Your task to perform on an android device: open a bookmark in the chrome app Image 0: 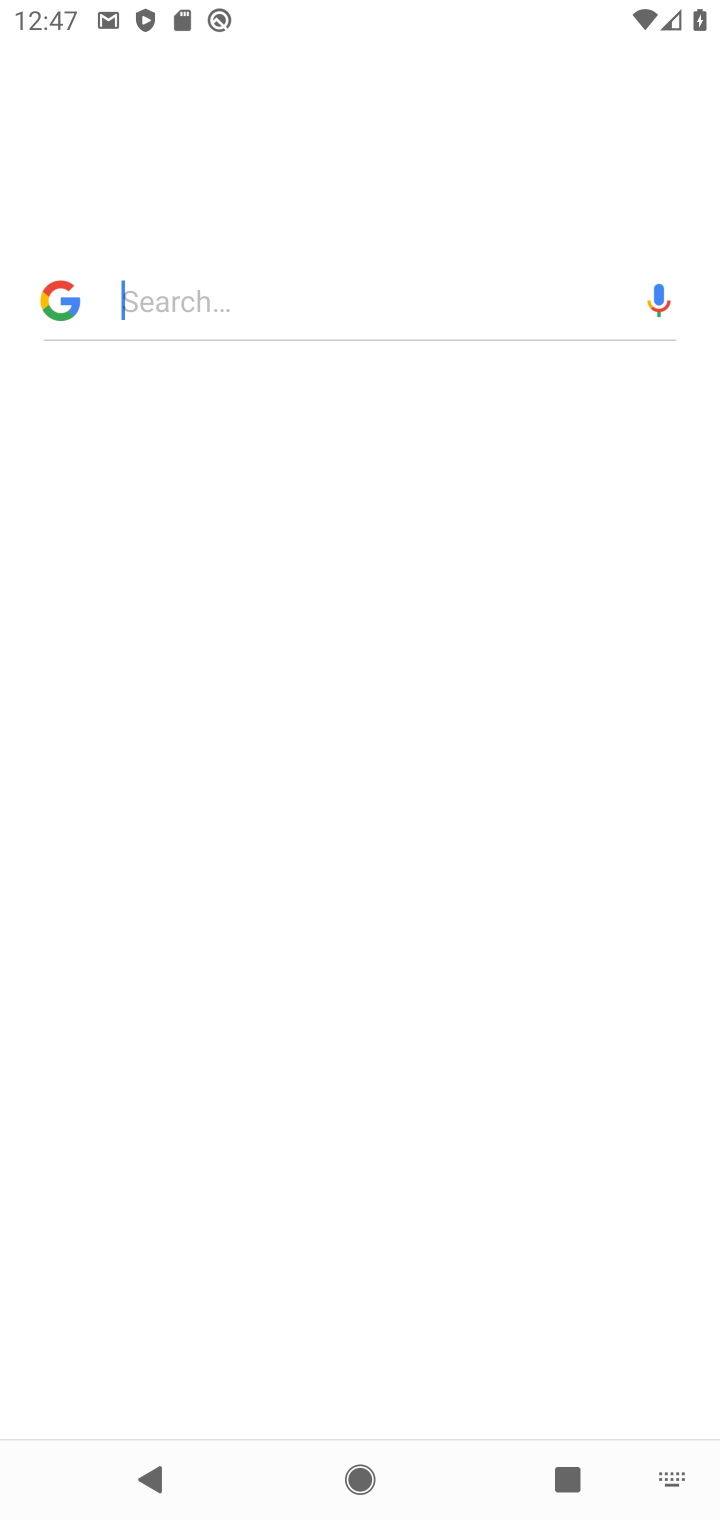
Step 0: press home button
Your task to perform on an android device: open a bookmark in the chrome app Image 1: 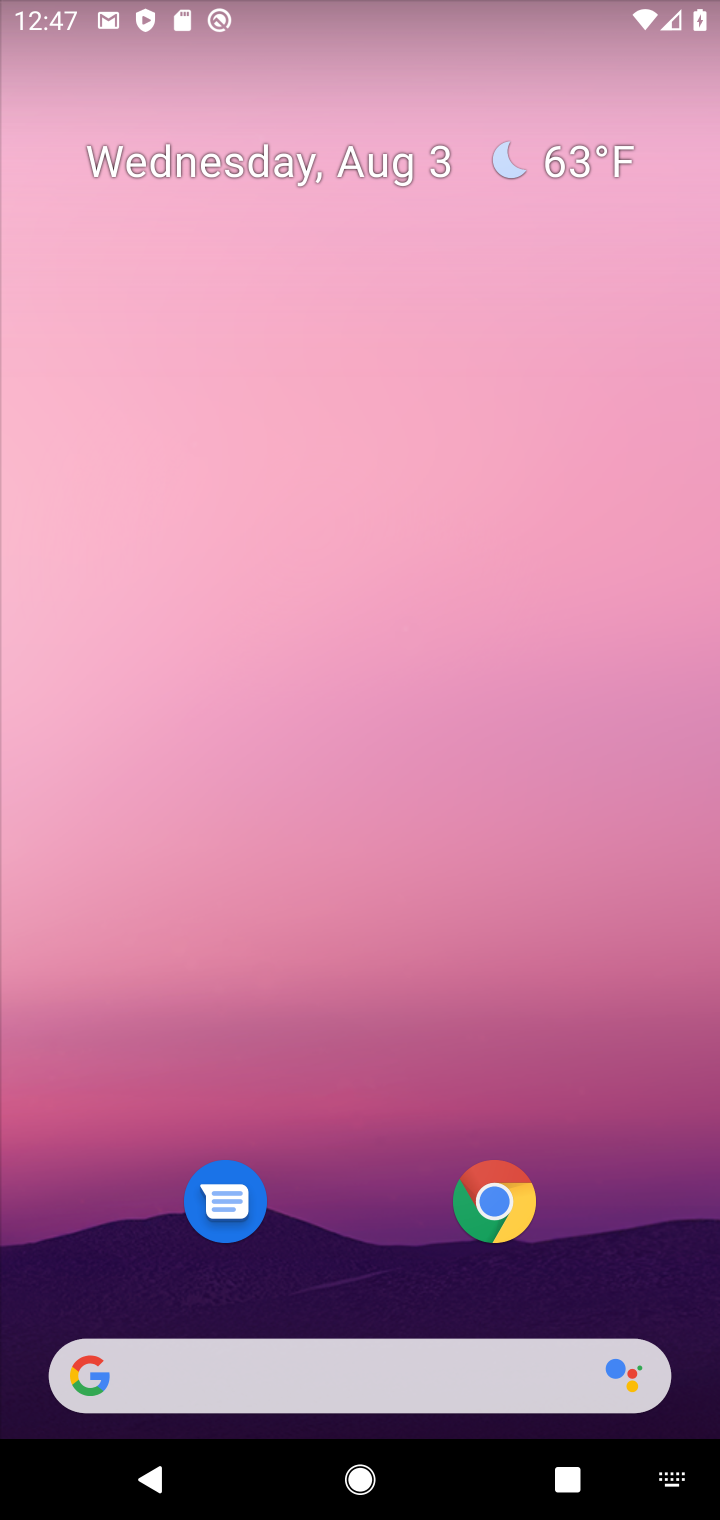
Step 1: click (497, 1202)
Your task to perform on an android device: open a bookmark in the chrome app Image 2: 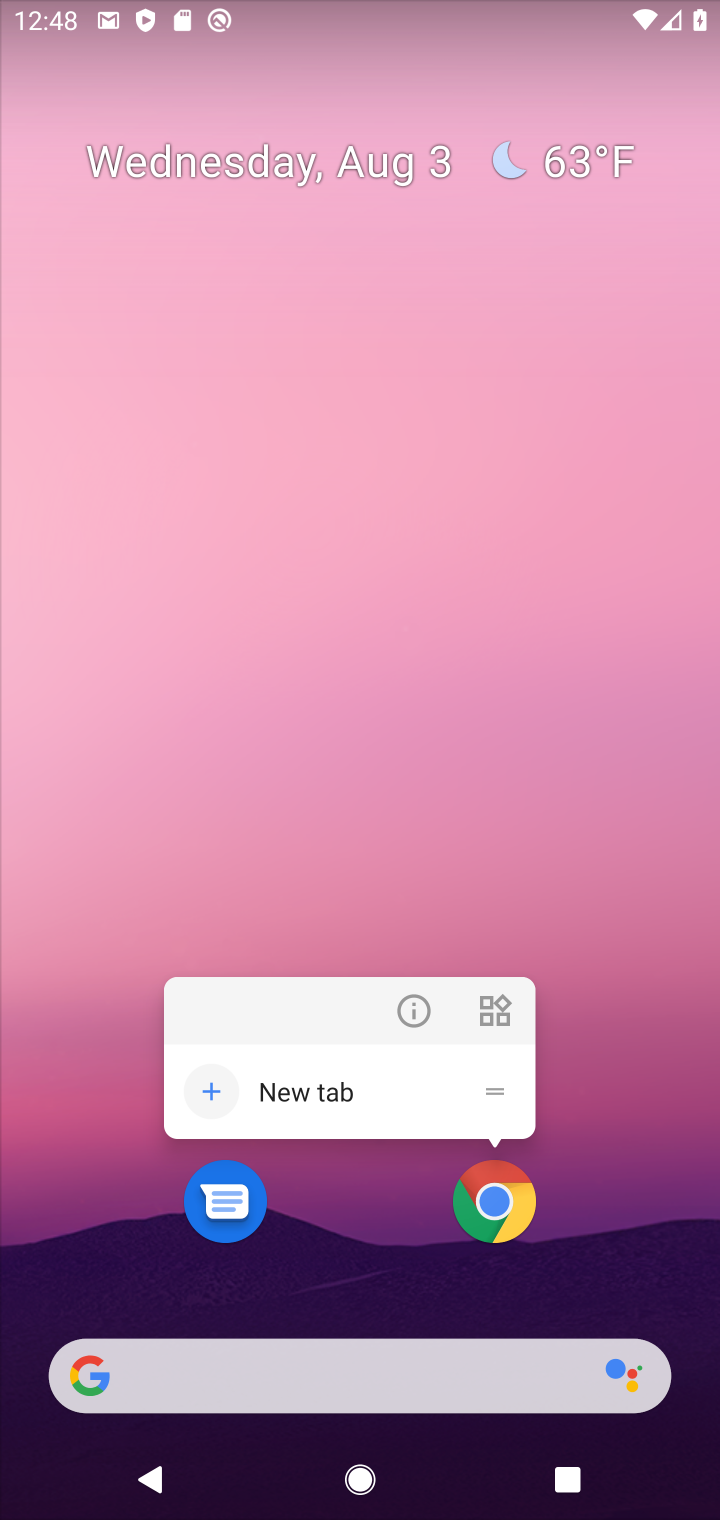
Step 2: click (497, 1206)
Your task to perform on an android device: open a bookmark in the chrome app Image 3: 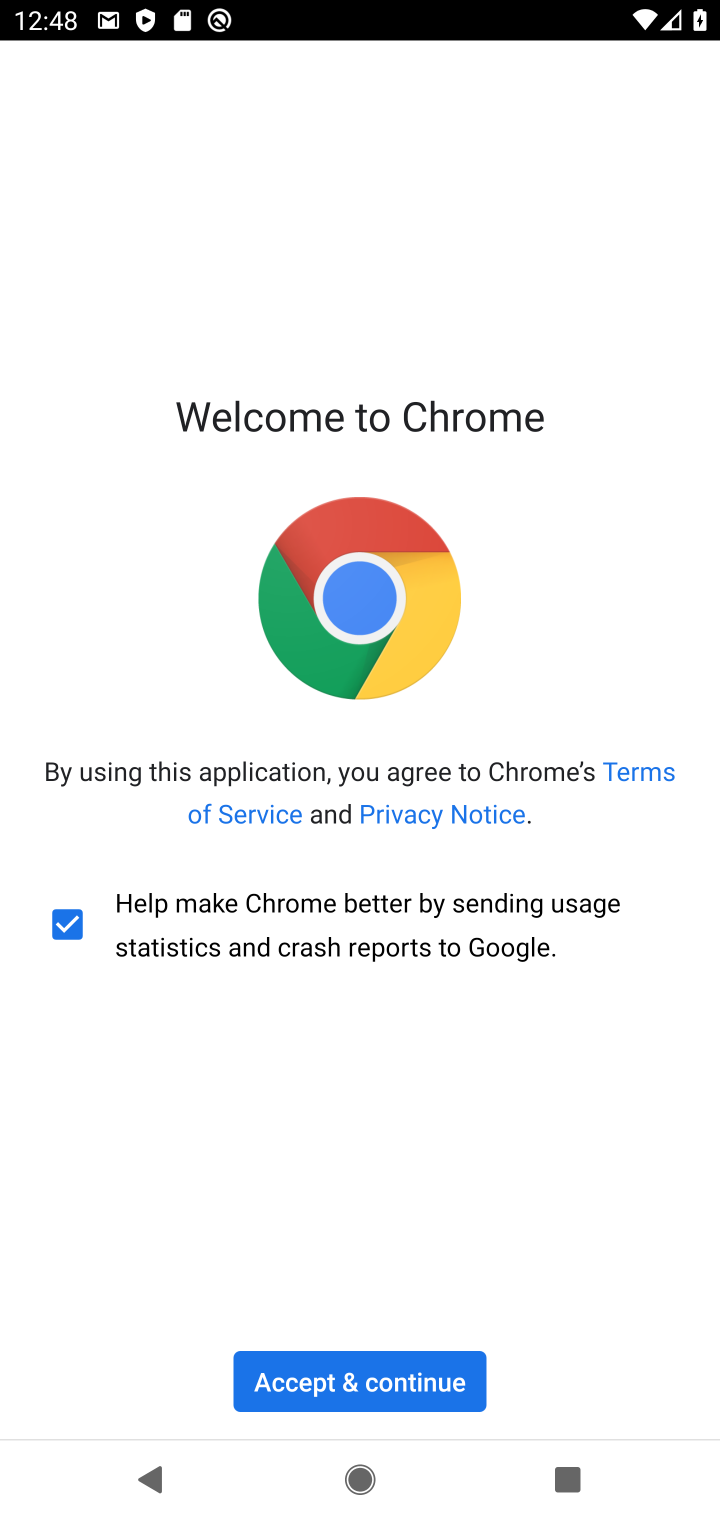
Step 3: click (441, 1374)
Your task to perform on an android device: open a bookmark in the chrome app Image 4: 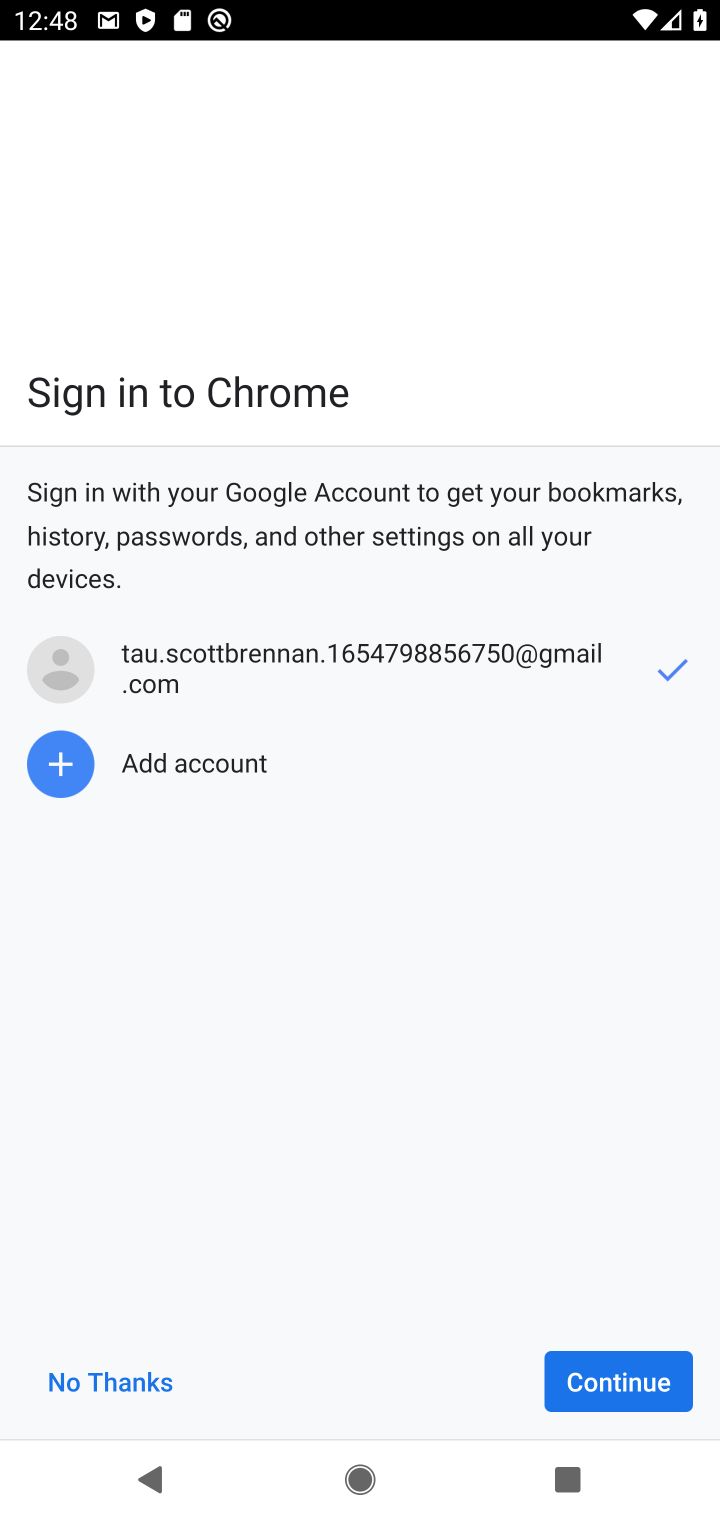
Step 4: click (608, 1379)
Your task to perform on an android device: open a bookmark in the chrome app Image 5: 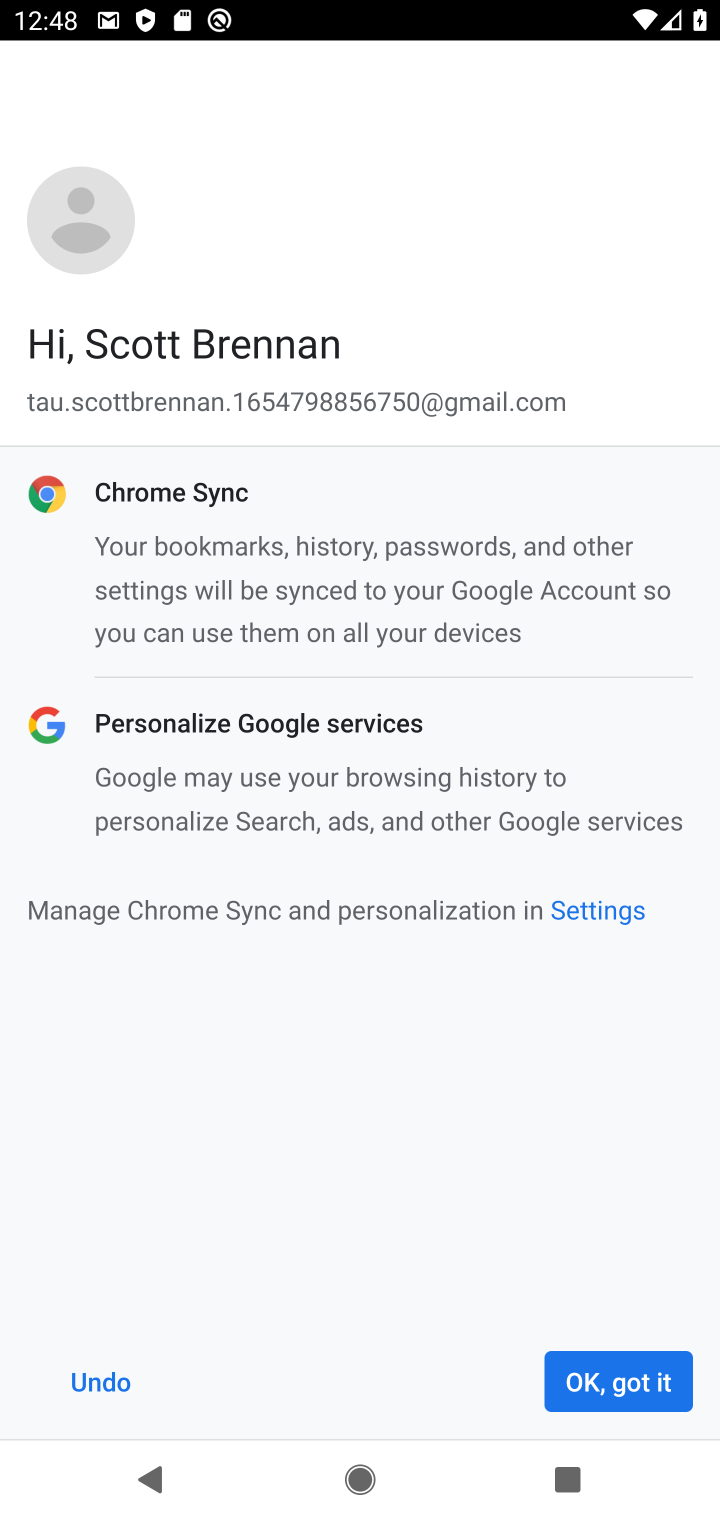
Step 5: click (608, 1379)
Your task to perform on an android device: open a bookmark in the chrome app Image 6: 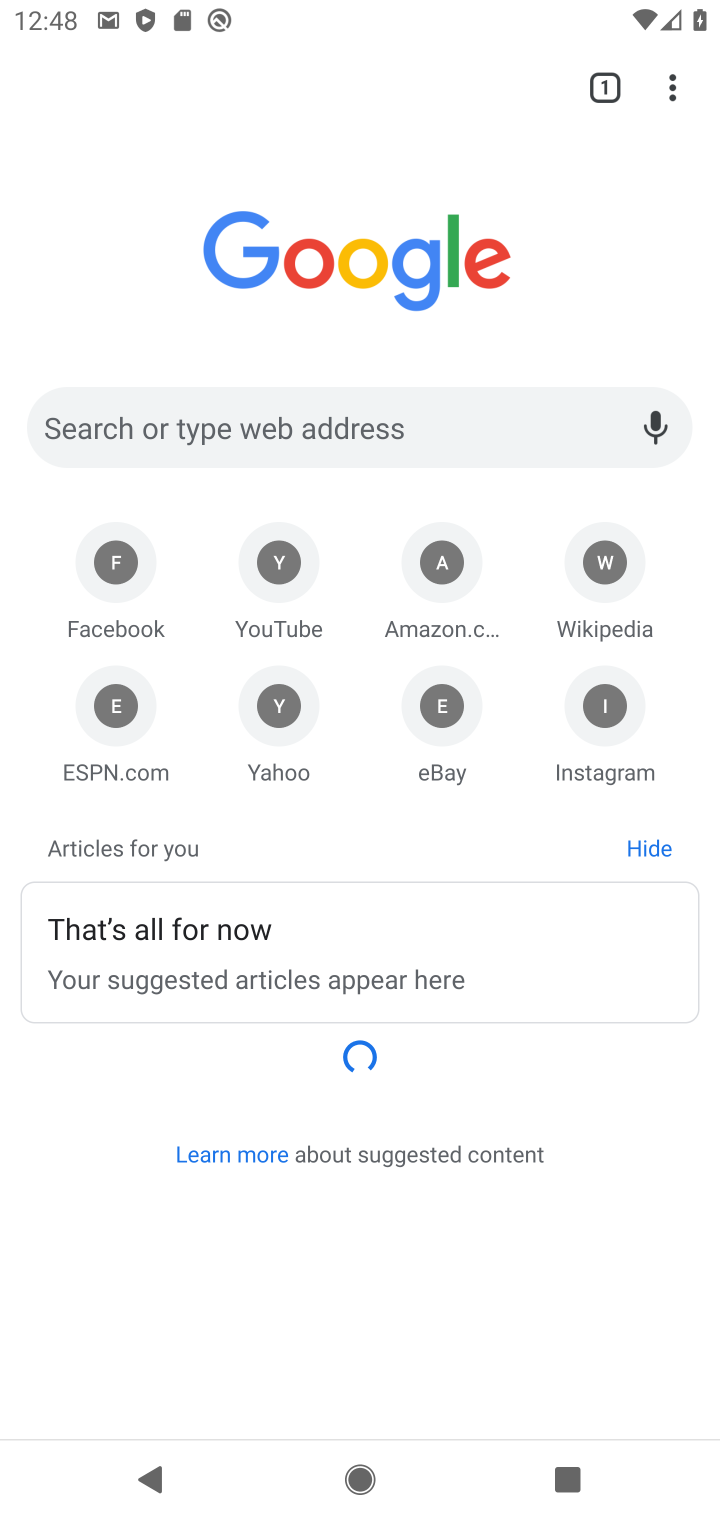
Step 6: task complete